Your task to perform on an android device: What's on my calendar today? Image 0: 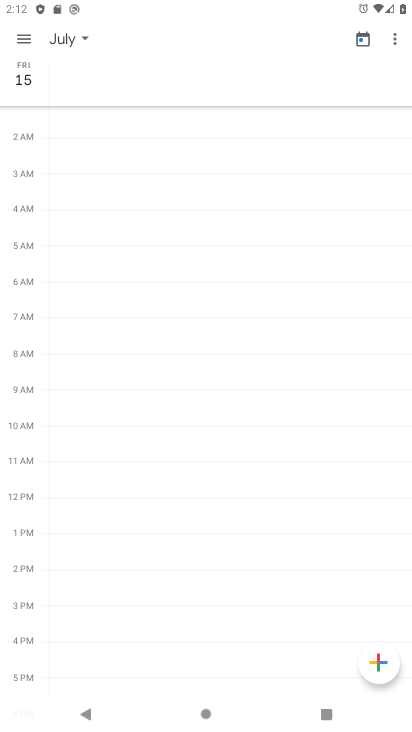
Step 0: click (25, 75)
Your task to perform on an android device: What's on my calendar today? Image 1: 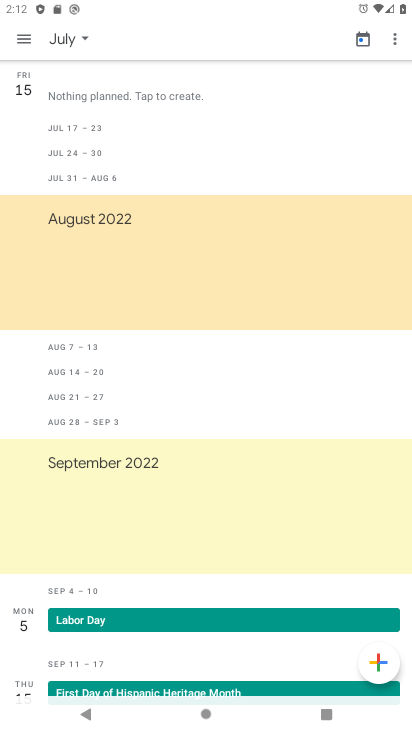
Step 1: task complete